Your task to perform on an android device: Go to privacy settings Image 0: 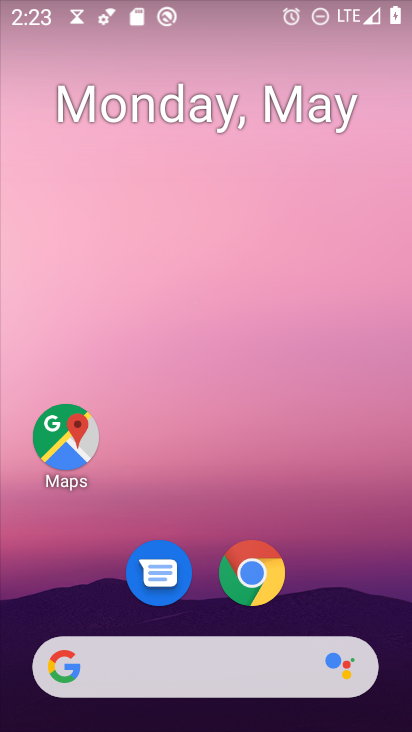
Step 0: drag from (289, 478) to (303, 3)
Your task to perform on an android device: Go to privacy settings Image 1: 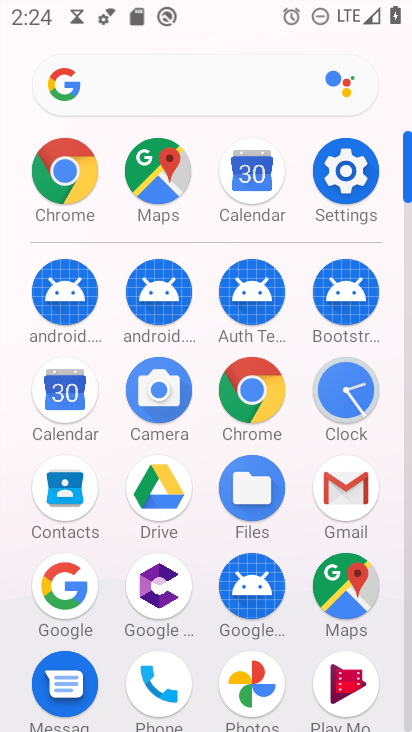
Step 1: click (370, 173)
Your task to perform on an android device: Go to privacy settings Image 2: 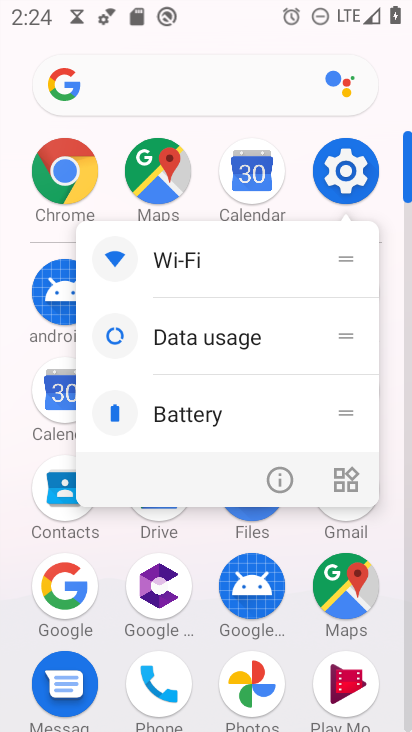
Step 2: click (348, 174)
Your task to perform on an android device: Go to privacy settings Image 3: 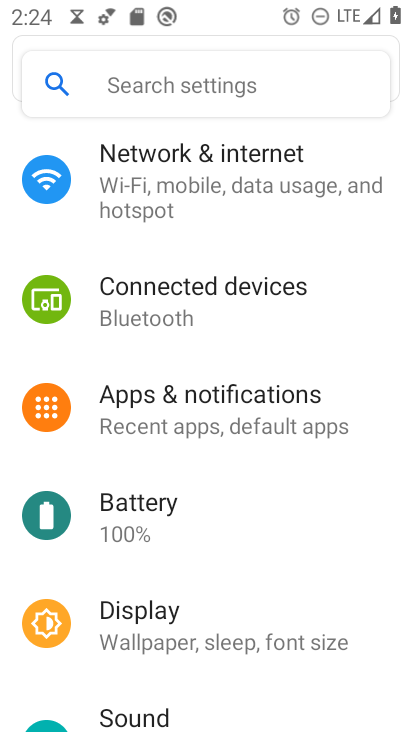
Step 3: drag from (207, 607) to (234, 85)
Your task to perform on an android device: Go to privacy settings Image 4: 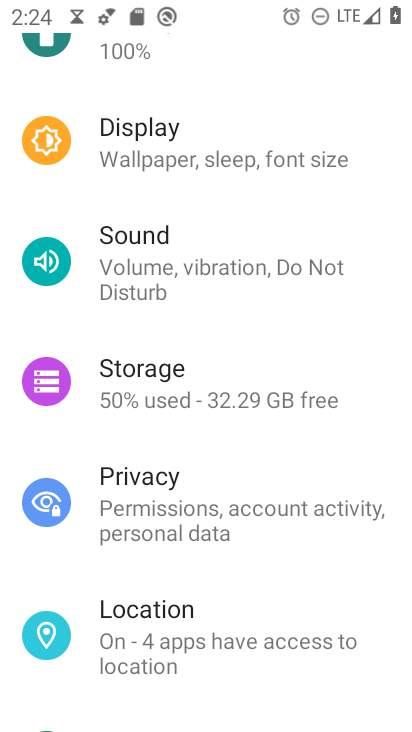
Step 4: click (212, 496)
Your task to perform on an android device: Go to privacy settings Image 5: 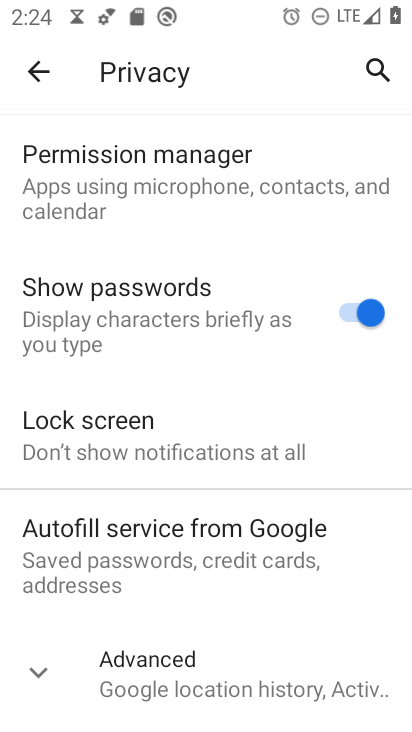
Step 5: task complete